Your task to perform on an android device: open sync settings in chrome Image 0: 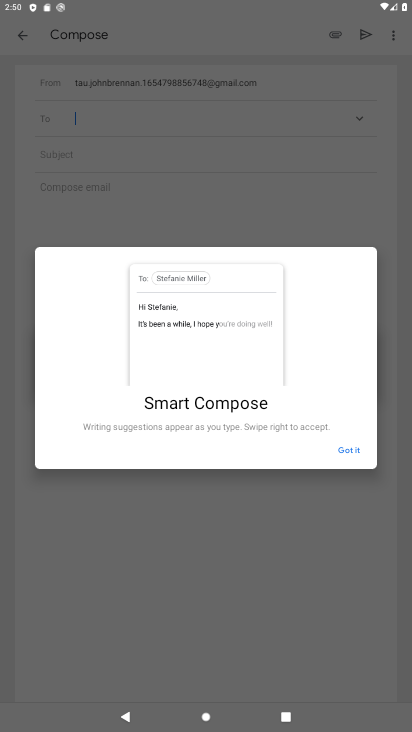
Step 0: press home button
Your task to perform on an android device: open sync settings in chrome Image 1: 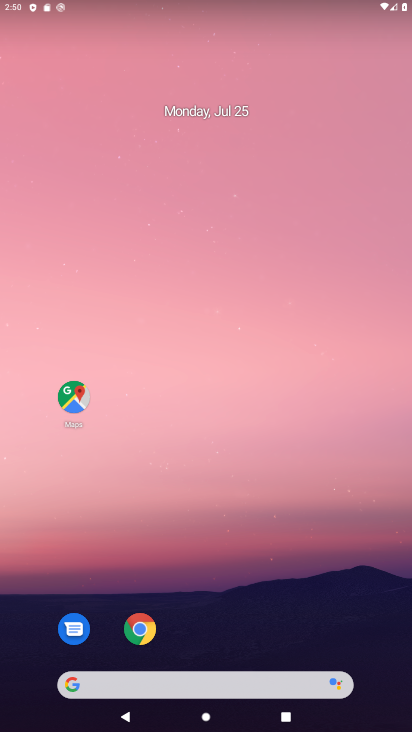
Step 1: click (144, 624)
Your task to perform on an android device: open sync settings in chrome Image 2: 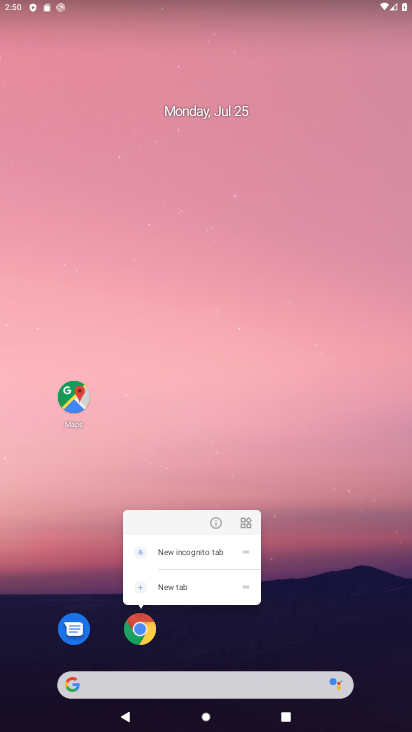
Step 2: click (137, 628)
Your task to perform on an android device: open sync settings in chrome Image 3: 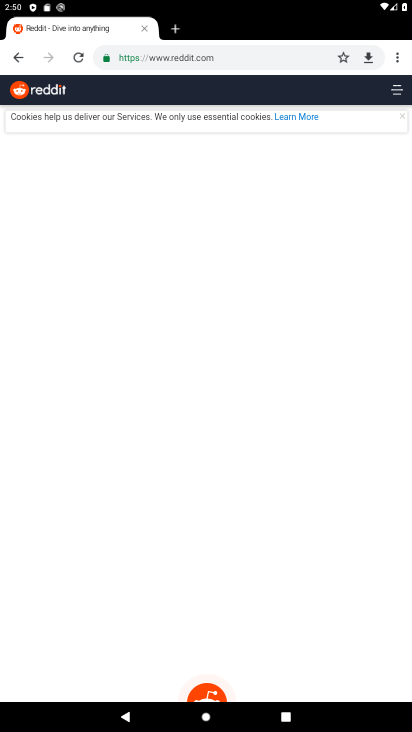
Step 3: drag from (400, 59) to (266, 382)
Your task to perform on an android device: open sync settings in chrome Image 4: 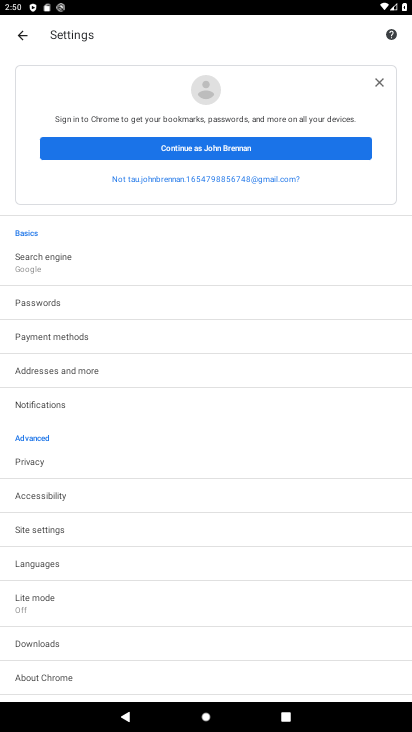
Step 4: click (199, 149)
Your task to perform on an android device: open sync settings in chrome Image 5: 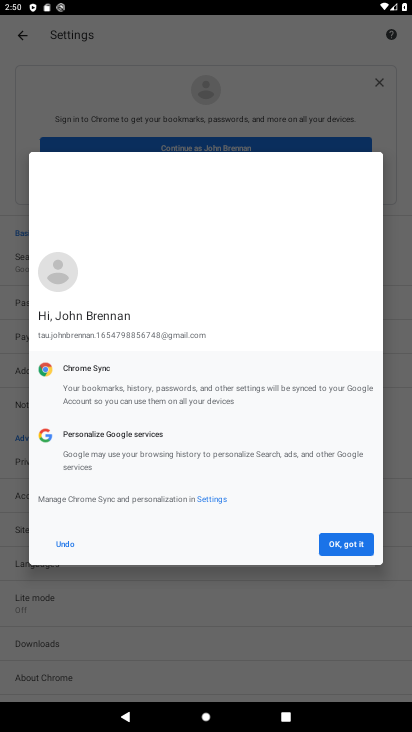
Step 5: click (341, 543)
Your task to perform on an android device: open sync settings in chrome Image 6: 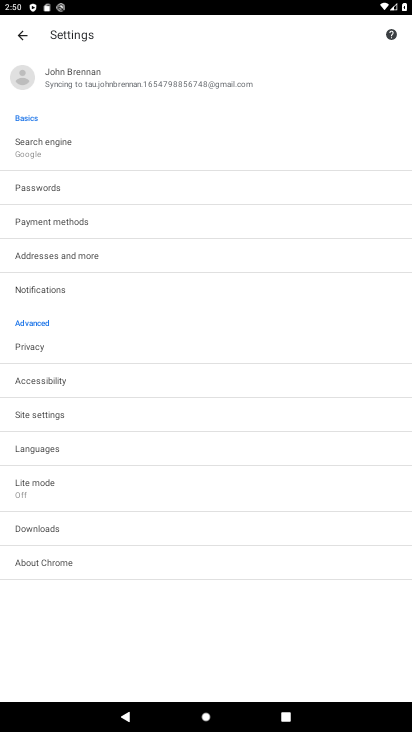
Step 6: click (60, 82)
Your task to perform on an android device: open sync settings in chrome Image 7: 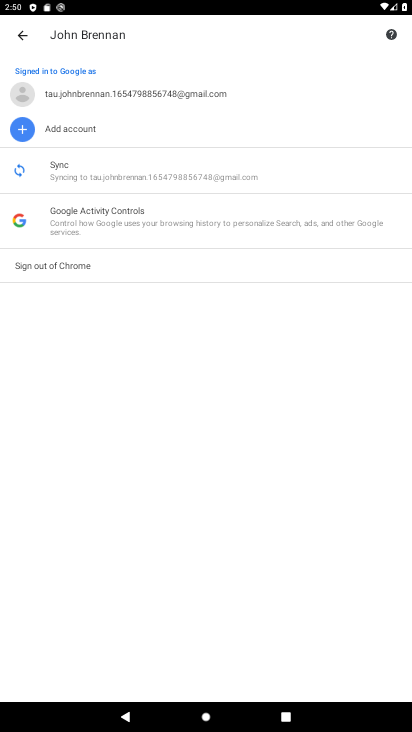
Step 7: click (61, 181)
Your task to perform on an android device: open sync settings in chrome Image 8: 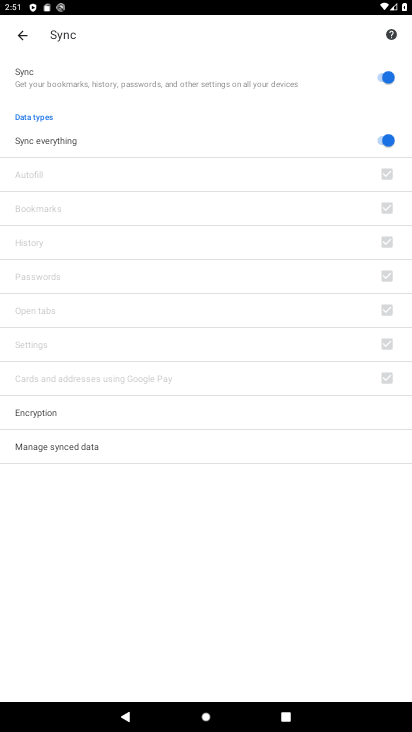
Step 8: task complete